Your task to perform on an android device: open wifi settings Image 0: 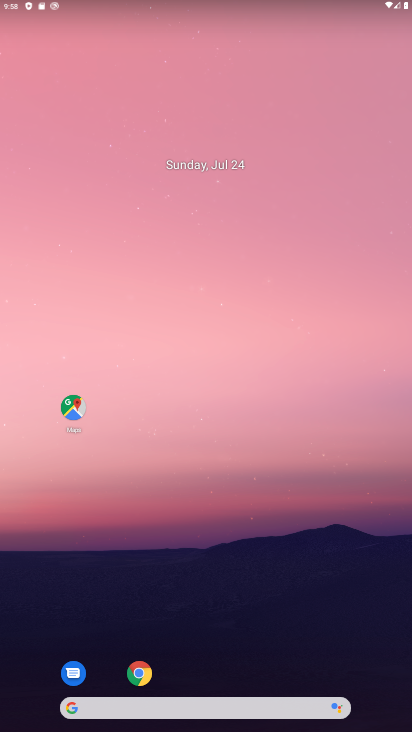
Step 0: drag from (237, 648) to (148, 122)
Your task to perform on an android device: open wifi settings Image 1: 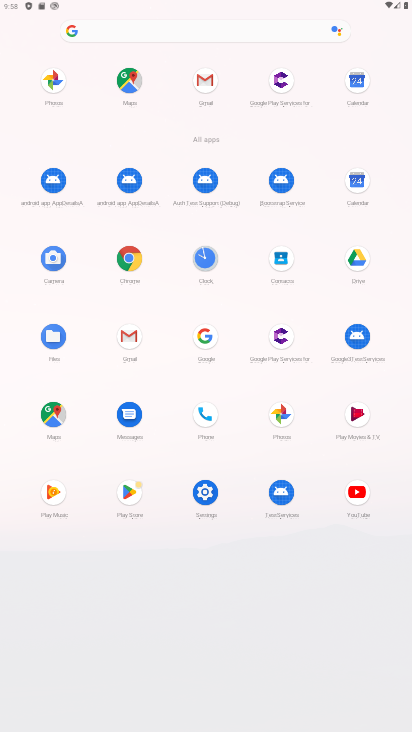
Step 1: click (216, 504)
Your task to perform on an android device: open wifi settings Image 2: 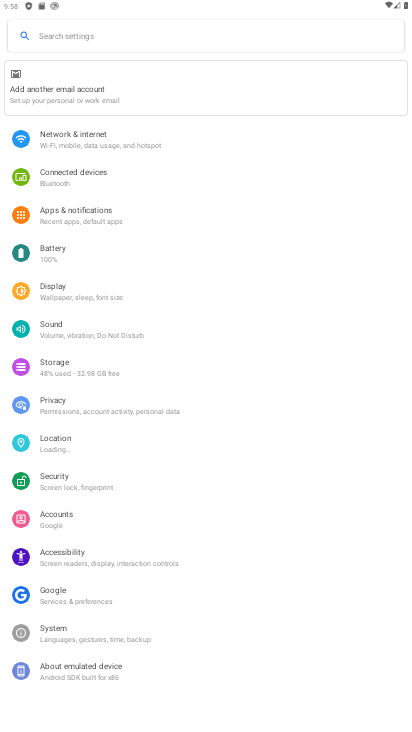
Step 2: click (124, 149)
Your task to perform on an android device: open wifi settings Image 3: 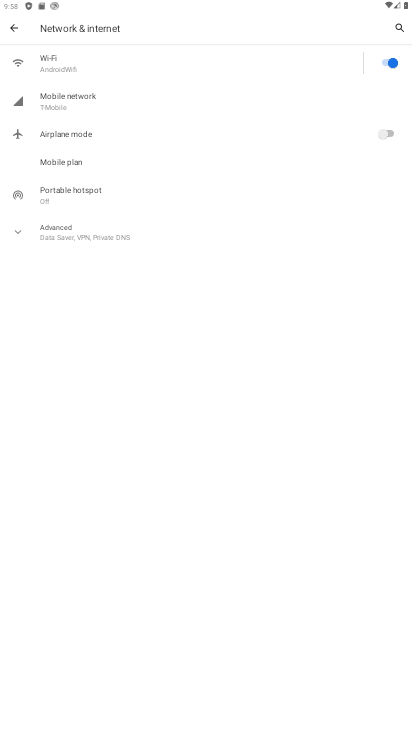
Step 3: click (202, 60)
Your task to perform on an android device: open wifi settings Image 4: 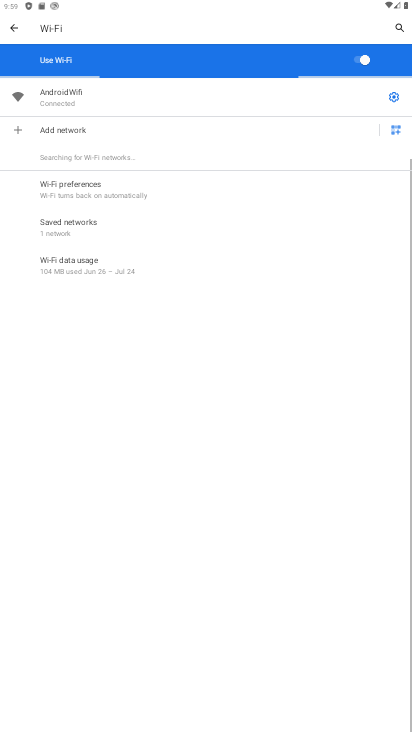
Step 4: task complete